Your task to perform on an android device: Open settings on Google Maps Image 0: 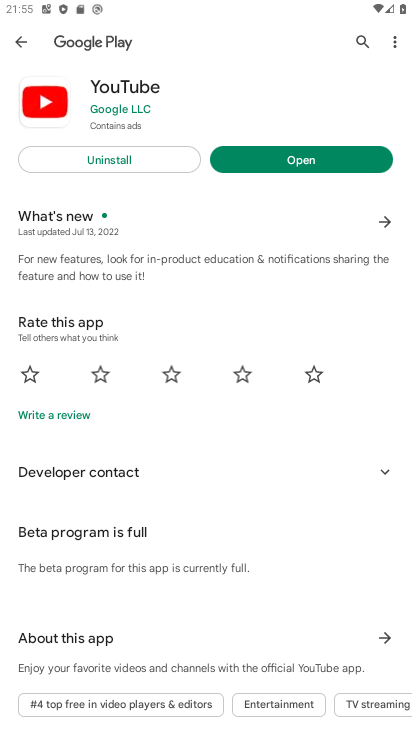
Step 0: press home button
Your task to perform on an android device: Open settings on Google Maps Image 1: 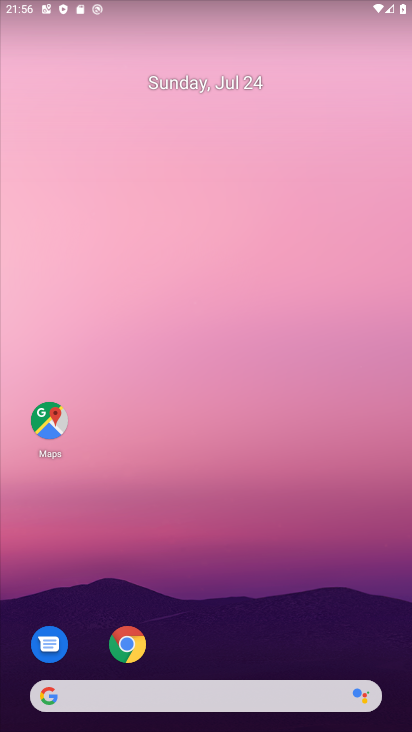
Step 1: click (52, 423)
Your task to perform on an android device: Open settings on Google Maps Image 2: 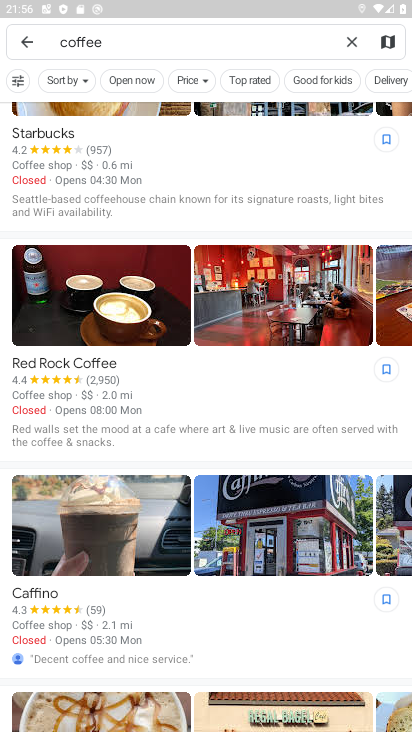
Step 2: click (348, 39)
Your task to perform on an android device: Open settings on Google Maps Image 3: 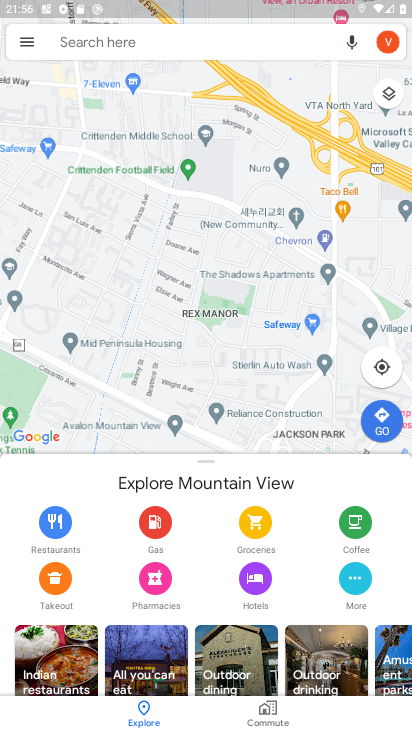
Step 3: click (30, 45)
Your task to perform on an android device: Open settings on Google Maps Image 4: 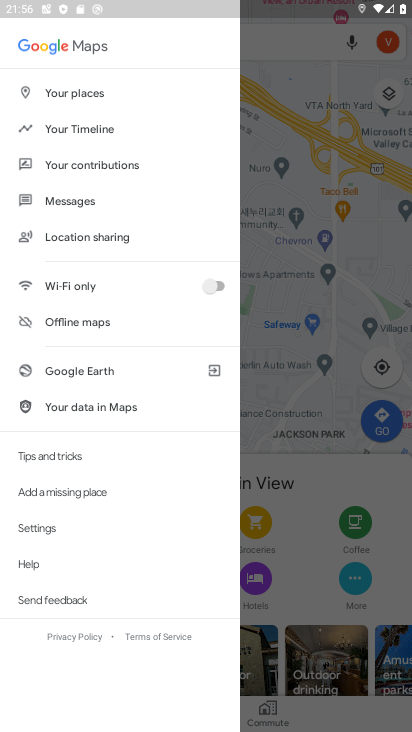
Step 4: click (43, 530)
Your task to perform on an android device: Open settings on Google Maps Image 5: 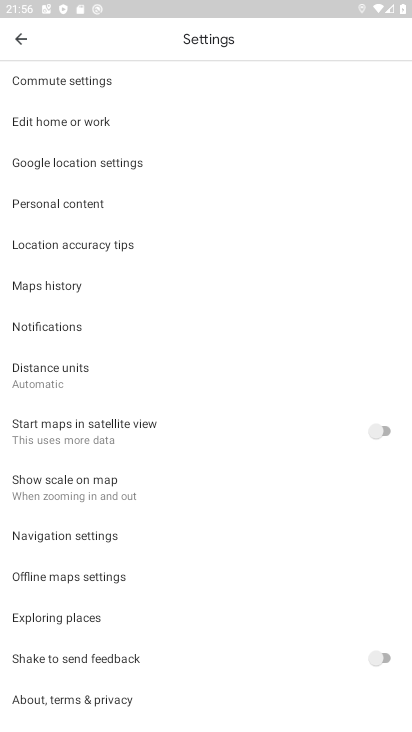
Step 5: task complete